Your task to perform on an android device: set an alarm Image 0: 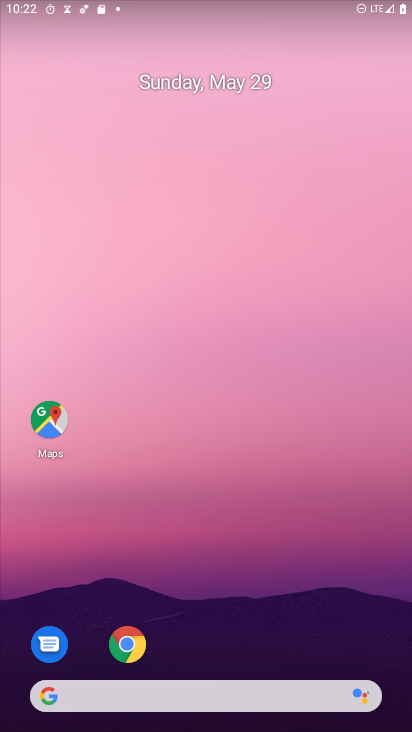
Step 0: drag from (168, 728) to (208, 95)
Your task to perform on an android device: set an alarm Image 1: 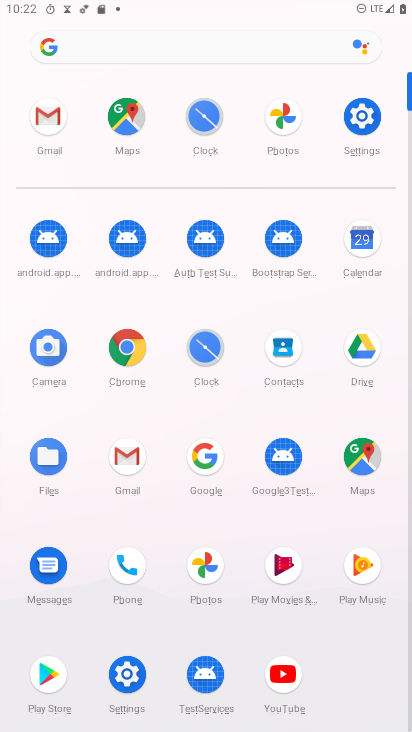
Step 1: click (210, 354)
Your task to perform on an android device: set an alarm Image 2: 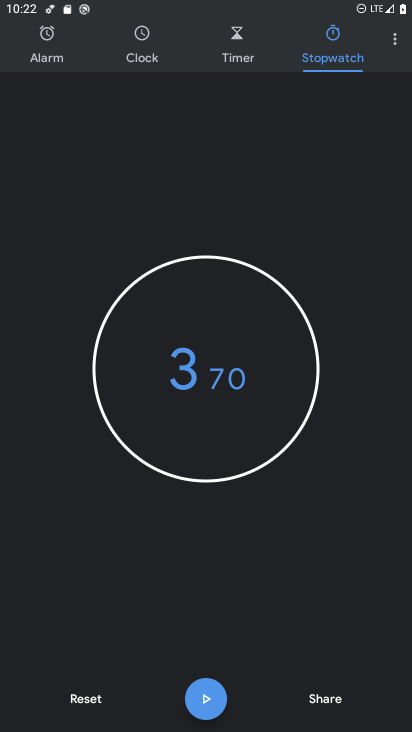
Step 2: click (139, 46)
Your task to perform on an android device: set an alarm Image 3: 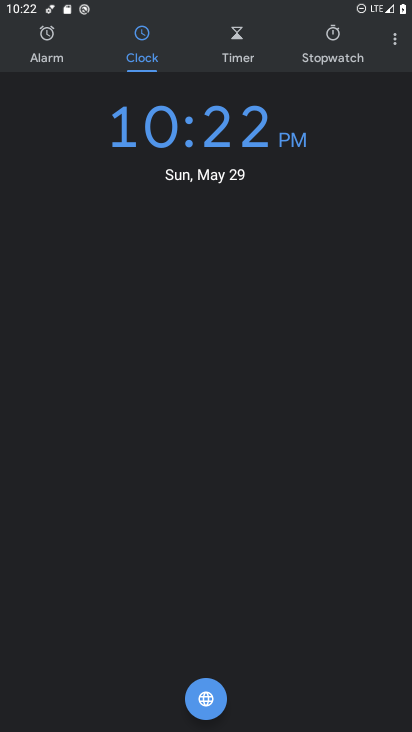
Step 3: click (50, 47)
Your task to perform on an android device: set an alarm Image 4: 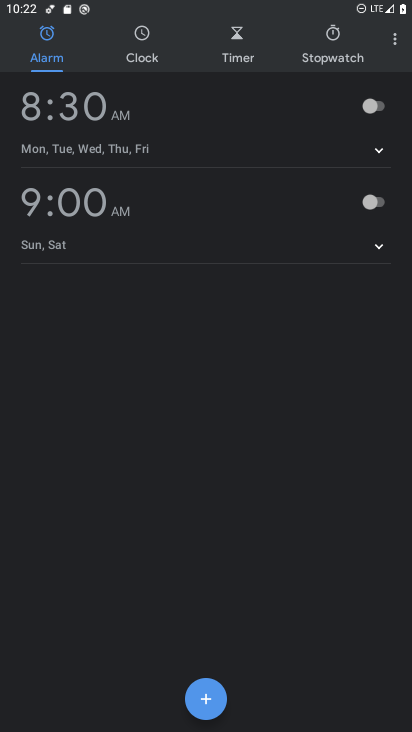
Step 4: click (376, 106)
Your task to perform on an android device: set an alarm Image 5: 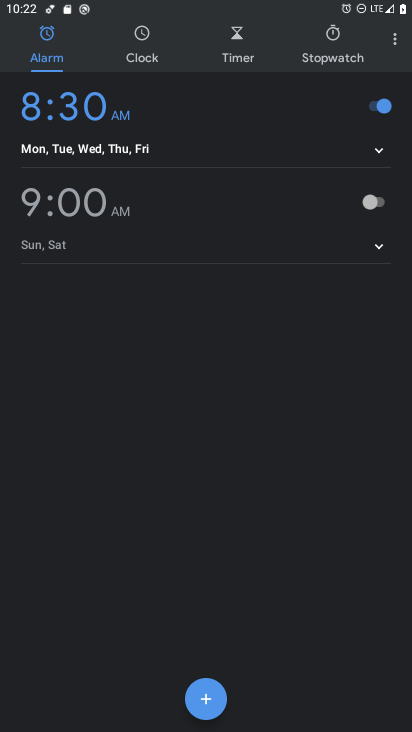
Step 5: task complete